Your task to perform on an android device: What is the recent news? Image 0: 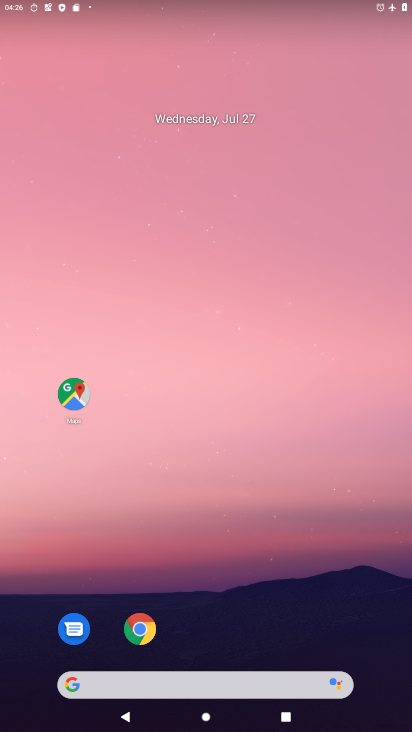
Step 0: click (260, 31)
Your task to perform on an android device: What is the recent news? Image 1: 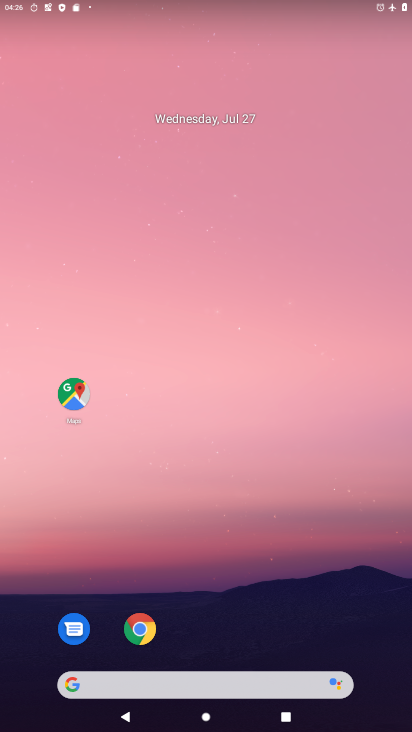
Step 1: drag from (301, 636) to (271, 151)
Your task to perform on an android device: What is the recent news? Image 2: 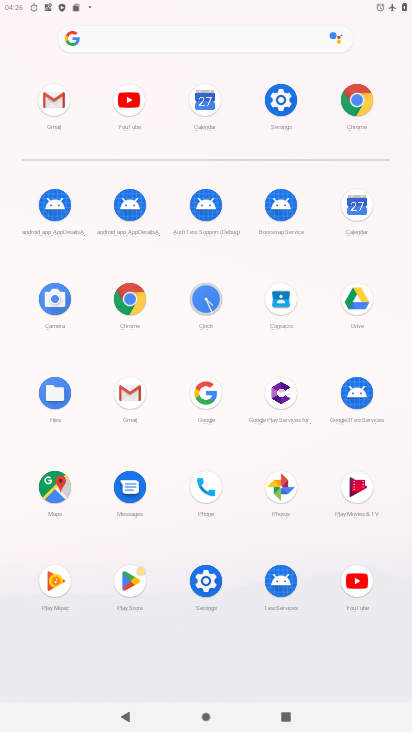
Step 2: click (350, 95)
Your task to perform on an android device: What is the recent news? Image 3: 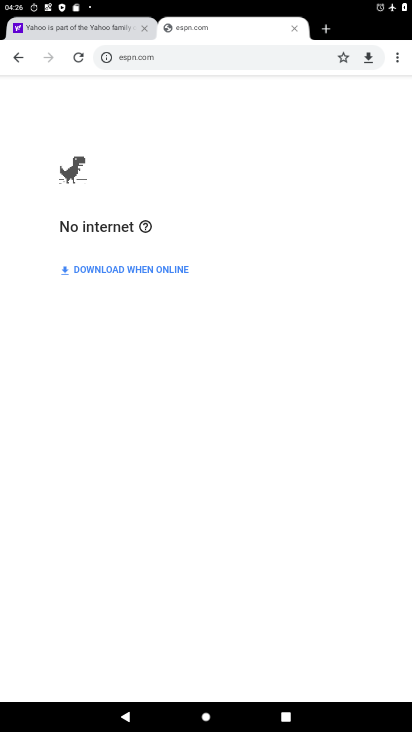
Step 3: click (238, 54)
Your task to perform on an android device: What is the recent news? Image 4: 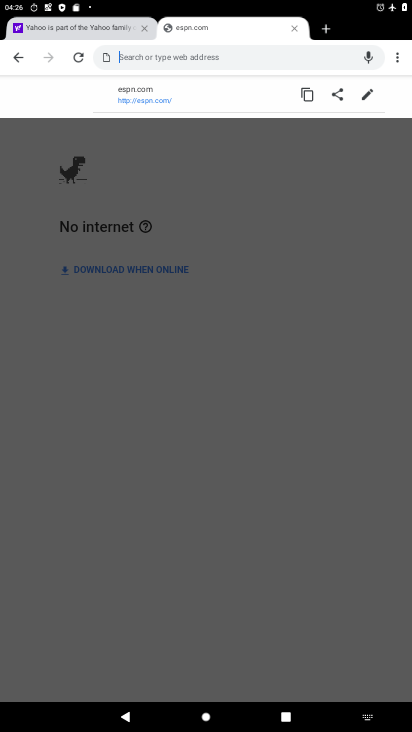
Step 4: type "neww"
Your task to perform on an android device: What is the recent news? Image 5: 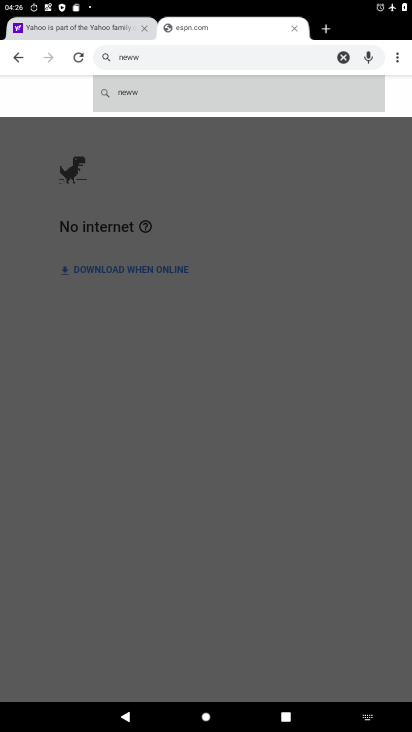
Step 5: click (305, 94)
Your task to perform on an android device: What is the recent news? Image 6: 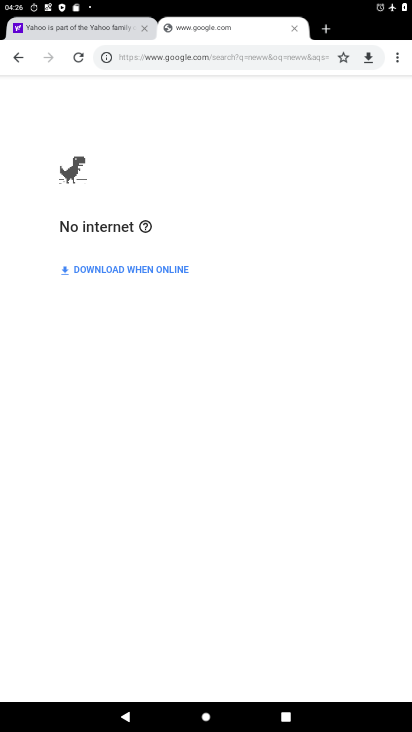
Step 6: task complete